Your task to perform on an android device: What's on my calendar tomorrow? Image 0: 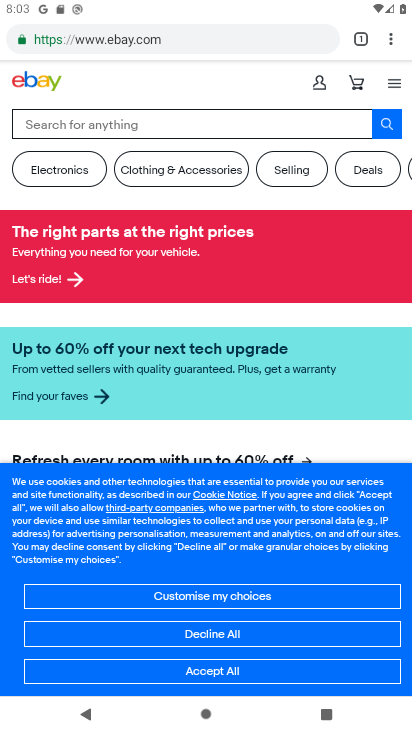
Step 0: press home button
Your task to perform on an android device: What's on my calendar tomorrow? Image 1: 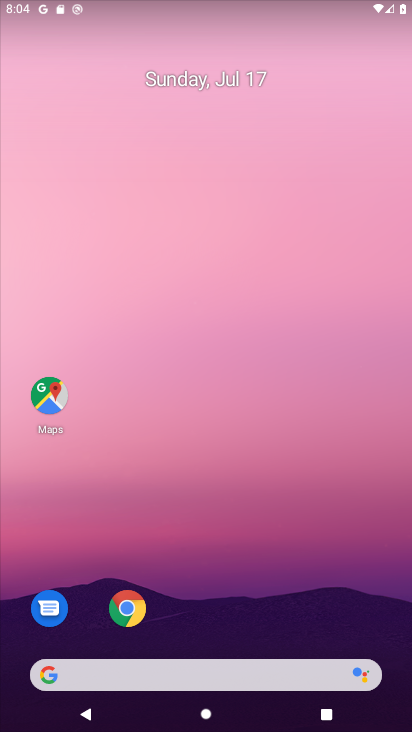
Step 1: drag from (193, 644) to (206, 207)
Your task to perform on an android device: What's on my calendar tomorrow? Image 2: 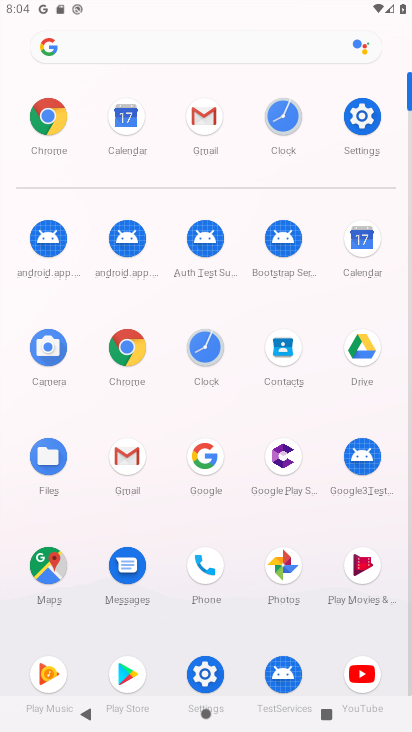
Step 2: click (356, 245)
Your task to perform on an android device: What's on my calendar tomorrow? Image 3: 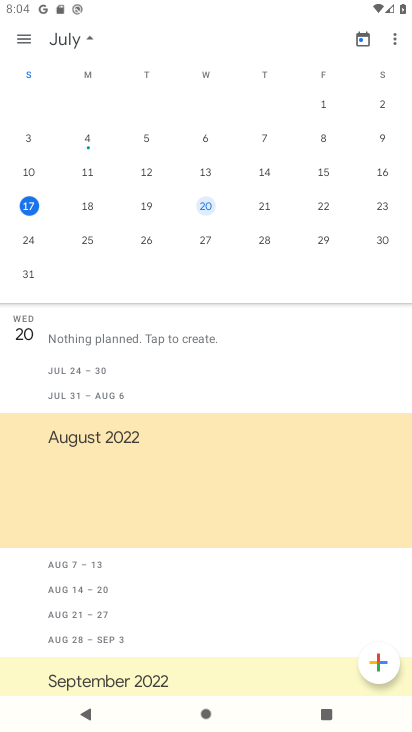
Step 3: click (83, 206)
Your task to perform on an android device: What's on my calendar tomorrow? Image 4: 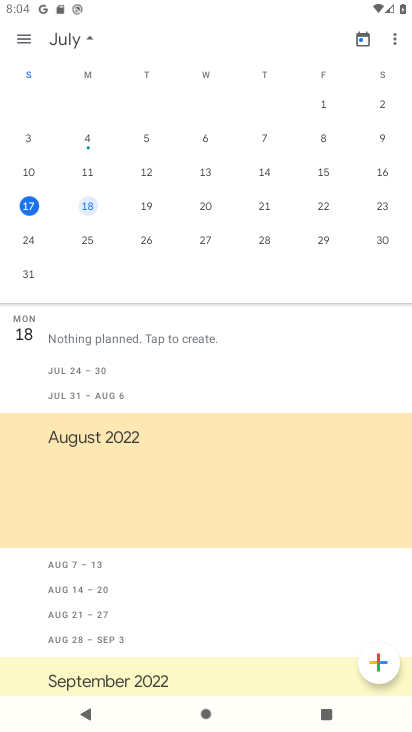
Step 4: task complete